Your task to perform on an android device: Is it going to rain tomorrow? Image 0: 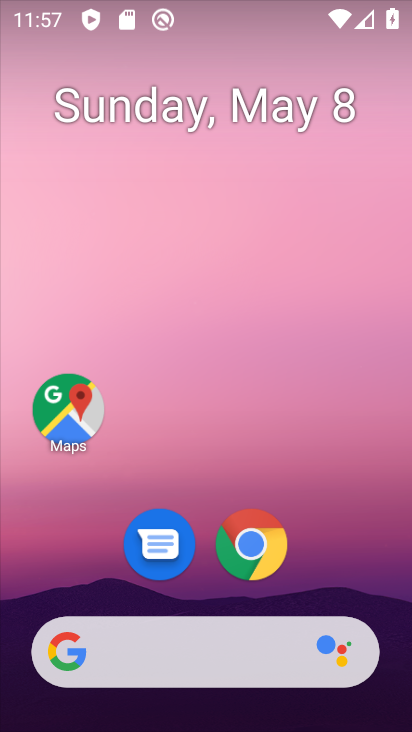
Step 0: drag from (360, 541) to (340, 19)
Your task to perform on an android device: Is it going to rain tomorrow? Image 1: 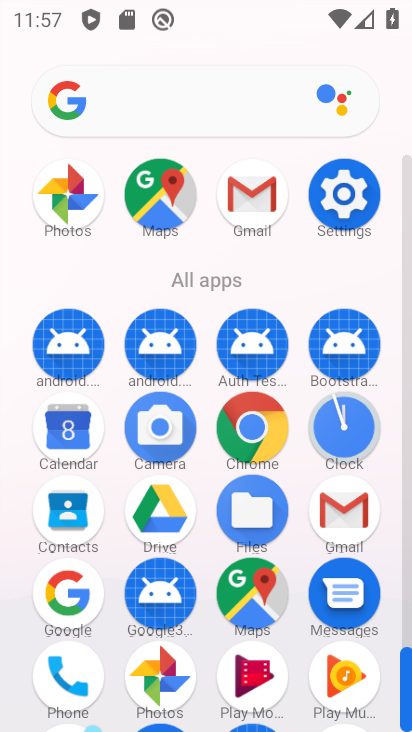
Step 1: click (70, 435)
Your task to perform on an android device: Is it going to rain tomorrow? Image 2: 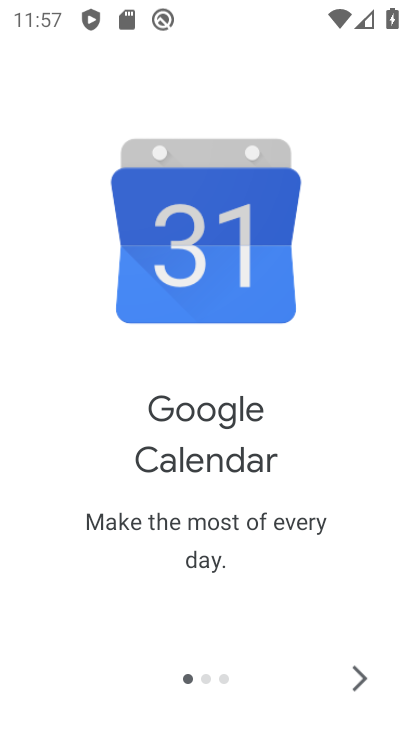
Step 2: click (352, 671)
Your task to perform on an android device: Is it going to rain tomorrow? Image 3: 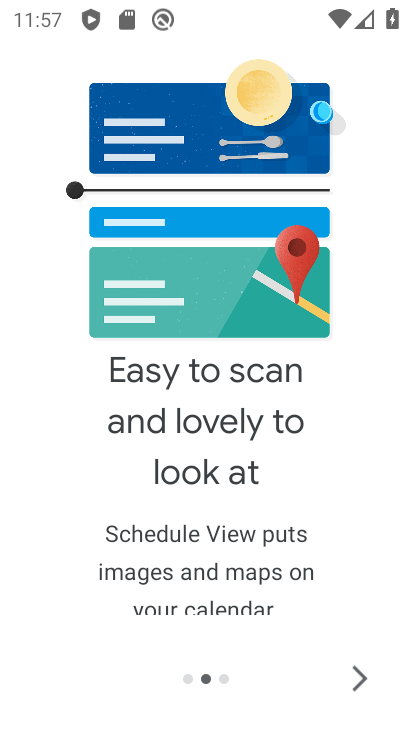
Step 3: click (351, 671)
Your task to perform on an android device: Is it going to rain tomorrow? Image 4: 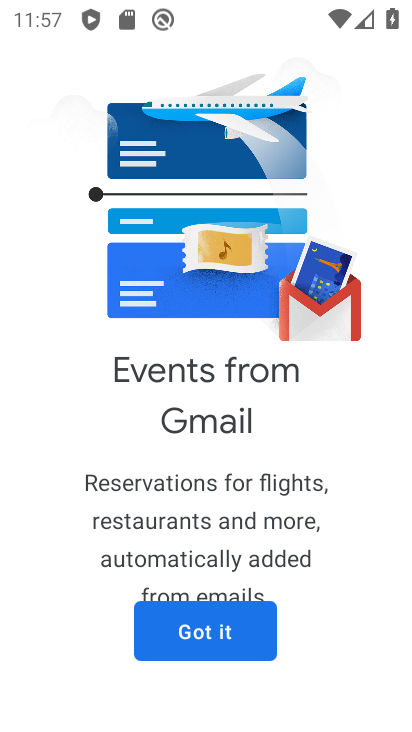
Step 4: click (245, 644)
Your task to perform on an android device: Is it going to rain tomorrow? Image 5: 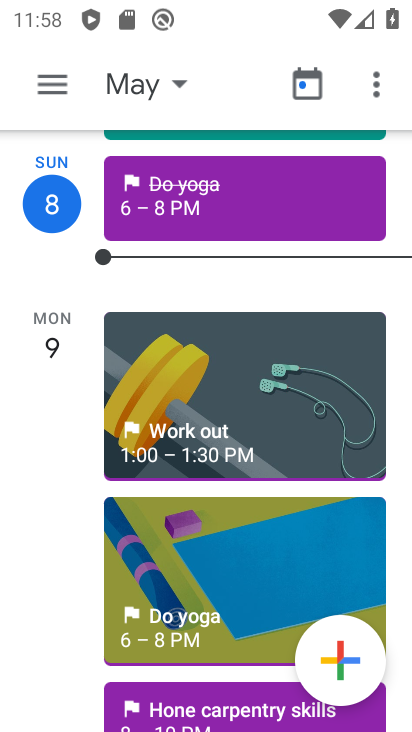
Step 5: click (144, 88)
Your task to perform on an android device: Is it going to rain tomorrow? Image 6: 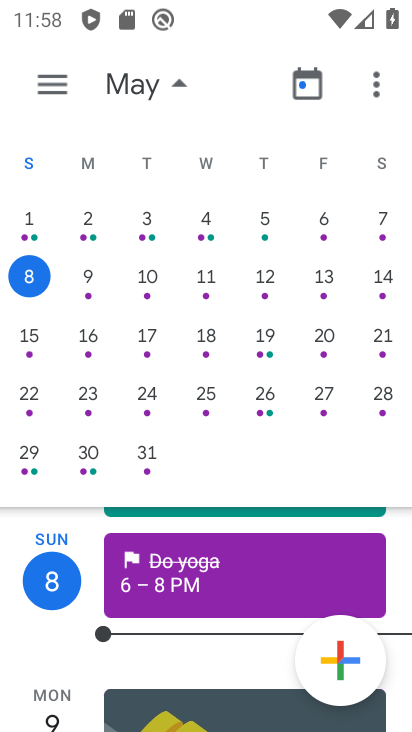
Step 6: click (90, 278)
Your task to perform on an android device: Is it going to rain tomorrow? Image 7: 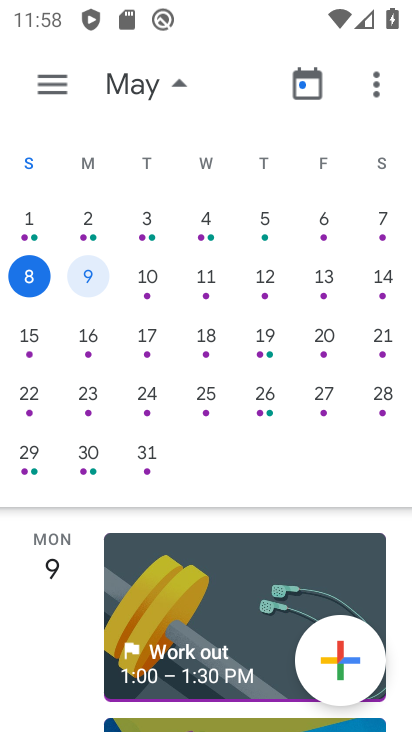
Step 7: task complete